Your task to perform on an android device: all mails in gmail Image 0: 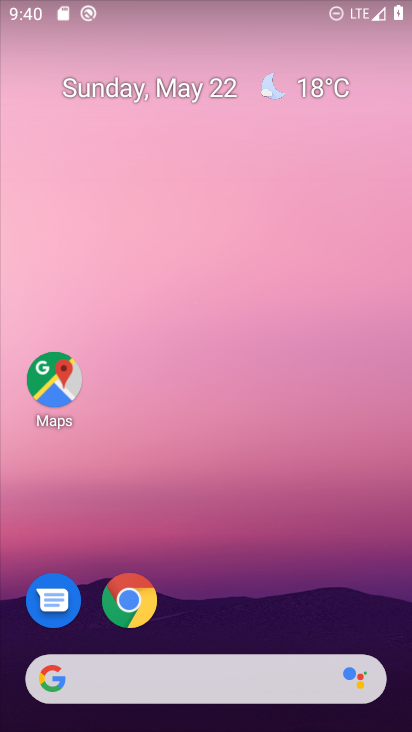
Step 0: drag from (383, 639) to (280, 9)
Your task to perform on an android device: all mails in gmail Image 1: 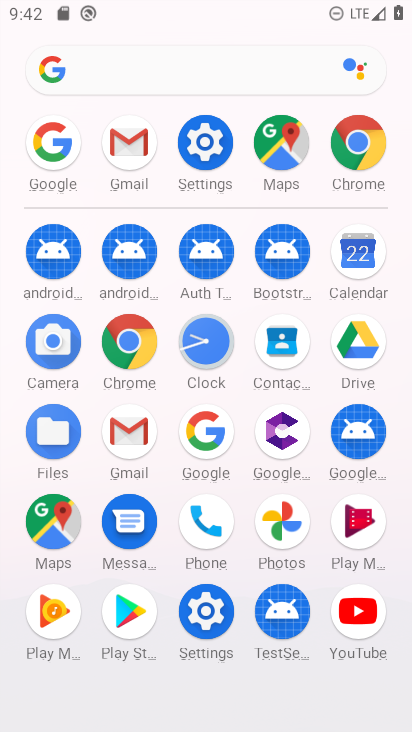
Step 1: click (119, 447)
Your task to perform on an android device: all mails in gmail Image 2: 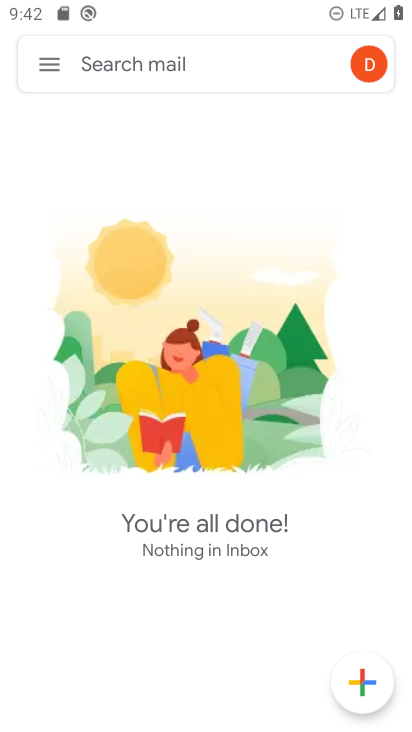
Step 2: click (50, 62)
Your task to perform on an android device: all mails in gmail Image 3: 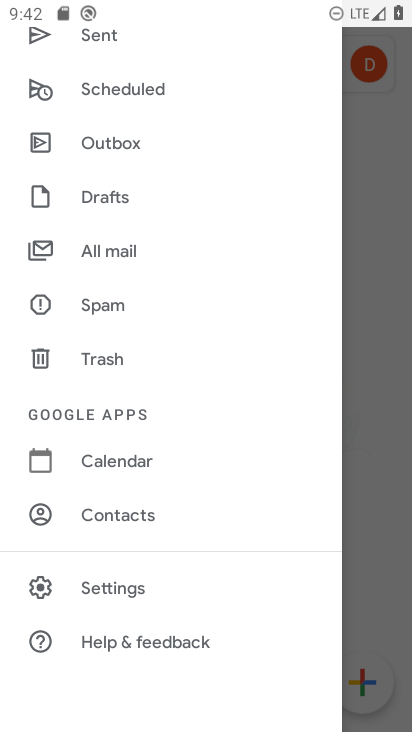
Step 3: click (139, 258)
Your task to perform on an android device: all mails in gmail Image 4: 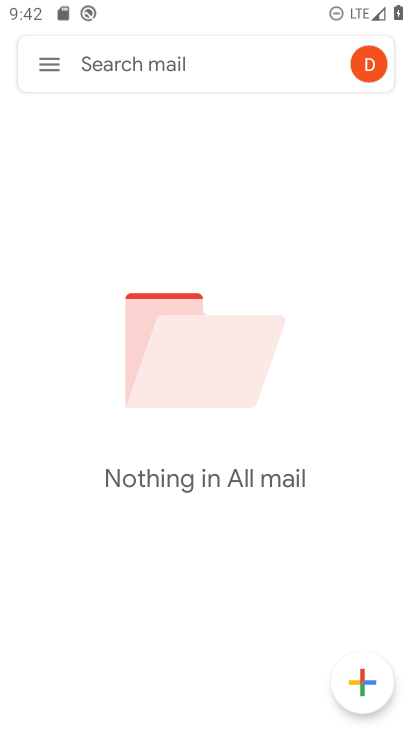
Step 4: task complete